Your task to perform on an android device: change keyboard looks Image 0: 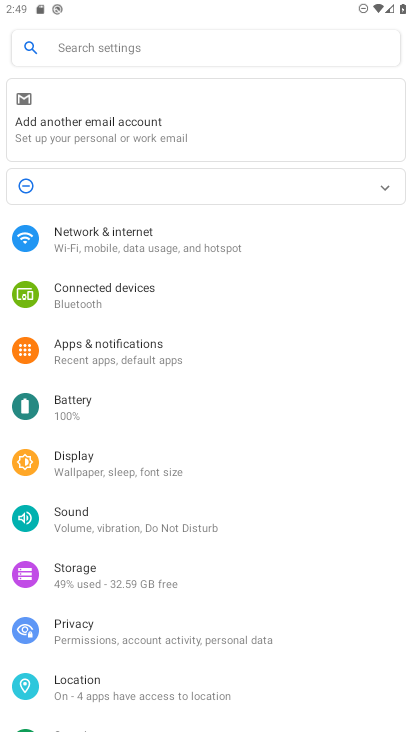
Step 0: press home button
Your task to perform on an android device: change keyboard looks Image 1: 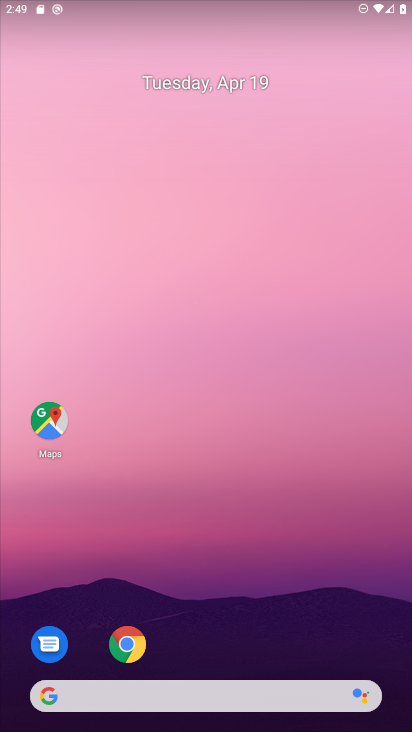
Step 1: drag from (160, 626) to (103, 80)
Your task to perform on an android device: change keyboard looks Image 2: 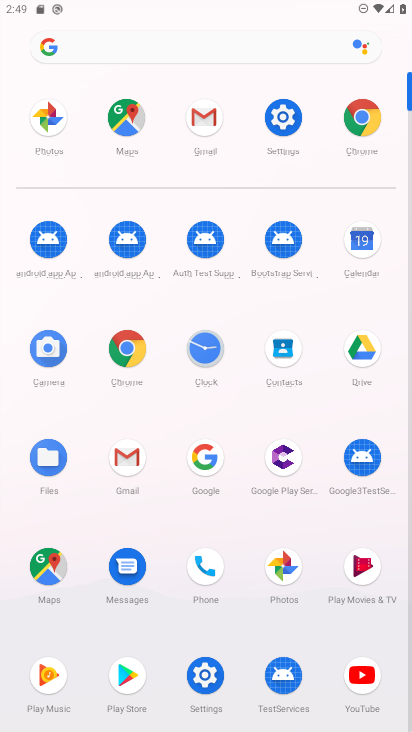
Step 2: click (275, 123)
Your task to perform on an android device: change keyboard looks Image 3: 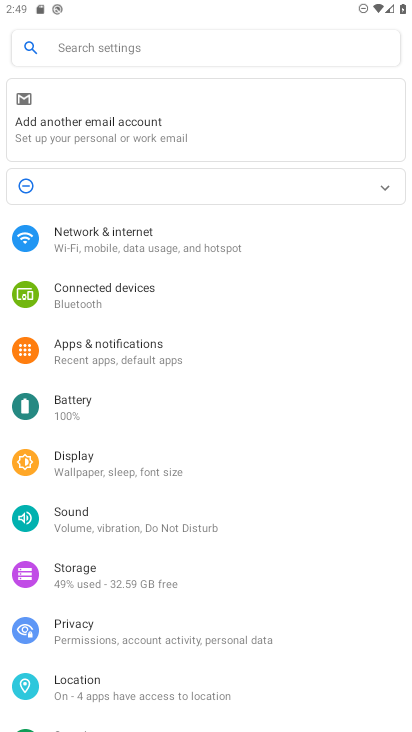
Step 3: drag from (130, 669) to (130, 192)
Your task to perform on an android device: change keyboard looks Image 4: 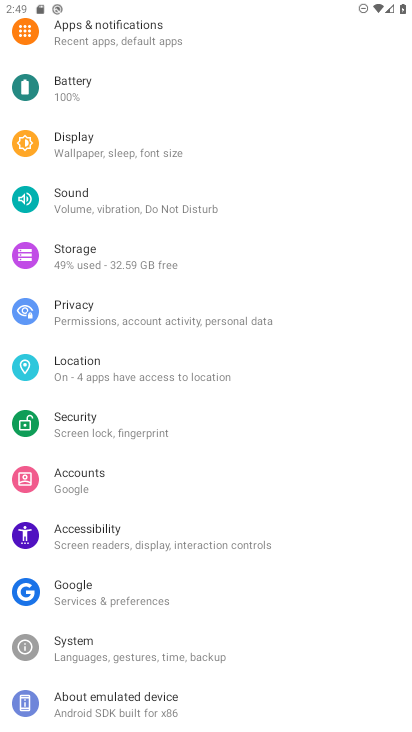
Step 4: click (123, 654)
Your task to perform on an android device: change keyboard looks Image 5: 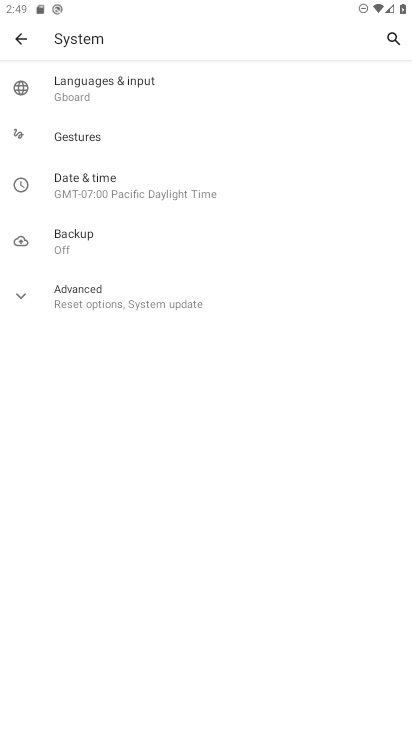
Step 5: click (93, 99)
Your task to perform on an android device: change keyboard looks Image 6: 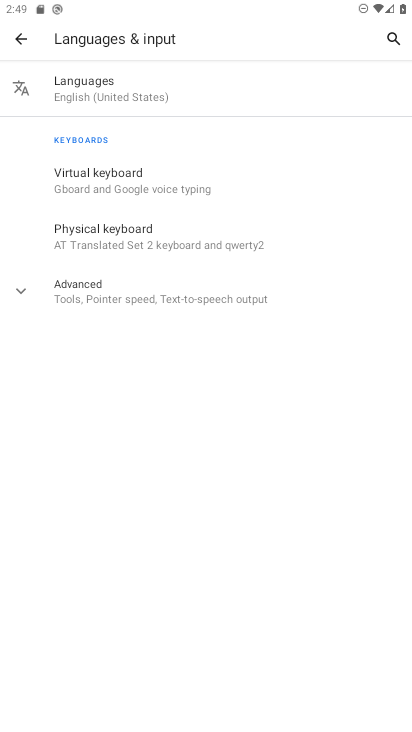
Step 6: click (101, 177)
Your task to perform on an android device: change keyboard looks Image 7: 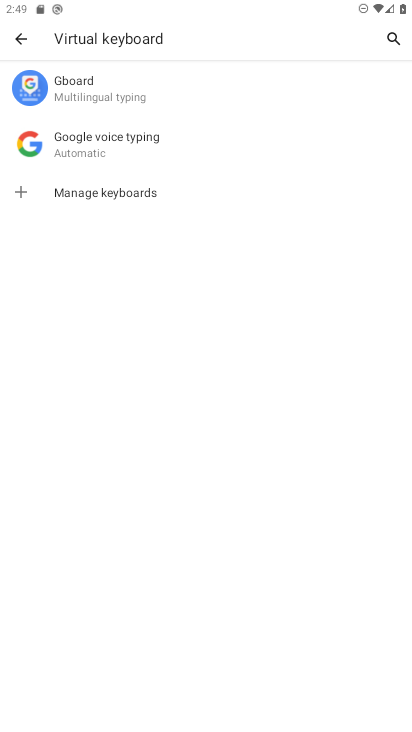
Step 7: click (103, 97)
Your task to perform on an android device: change keyboard looks Image 8: 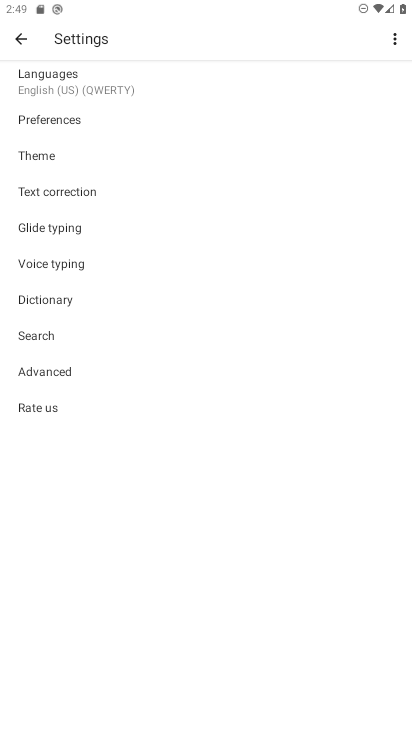
Step 8: click (18, 145)
Your task to perform on an android device: change keyboard looks Image 9: 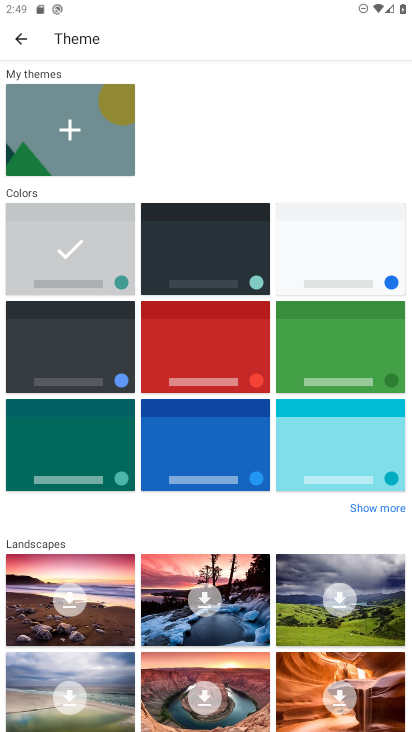
Step 9: drag from (244, 704) to (231, 334)
Your task to perform on an android device: change keyboard looks Image 10: 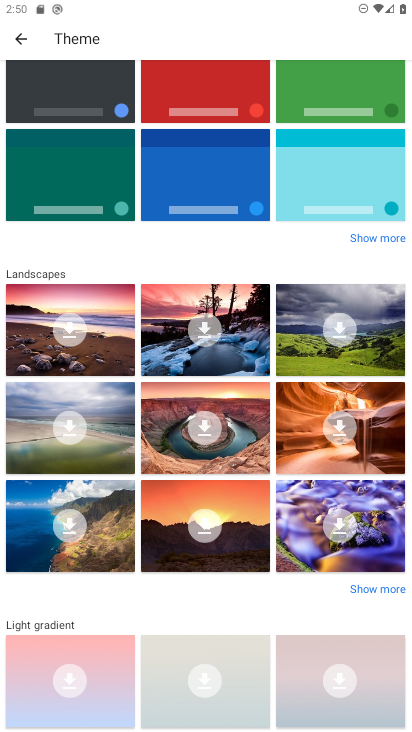
Step 10: click (354, 520)
Your task to perform on an android device: change keyboard looks Image 11: 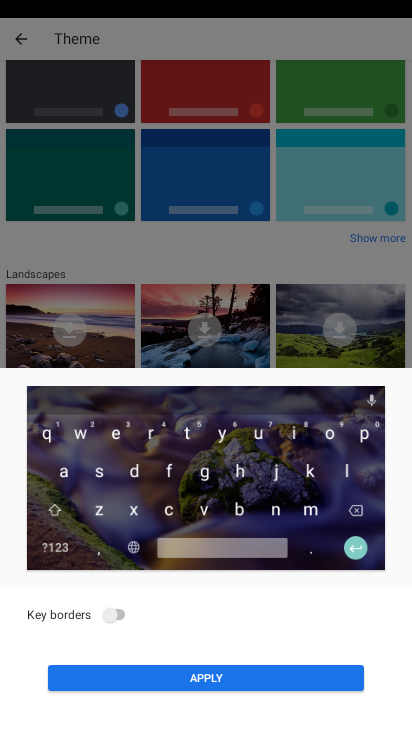
Step 11: click (180, 669)
Your task to perform on an android device: change keyboard looks Image 12: 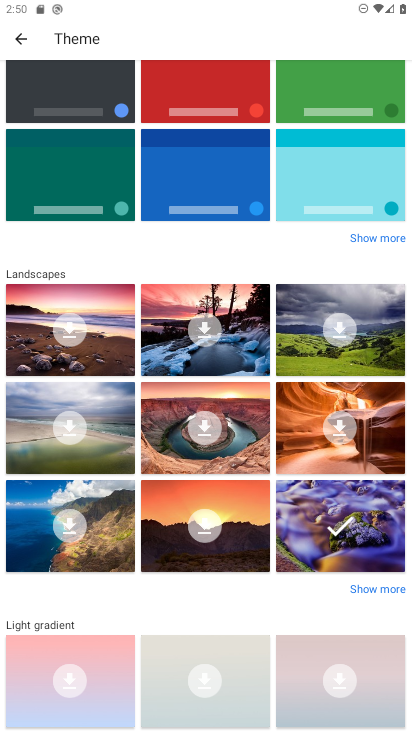
Step 12: task complete